Your task to perform on an android device: search for starred emails in the gmail app Image 0: 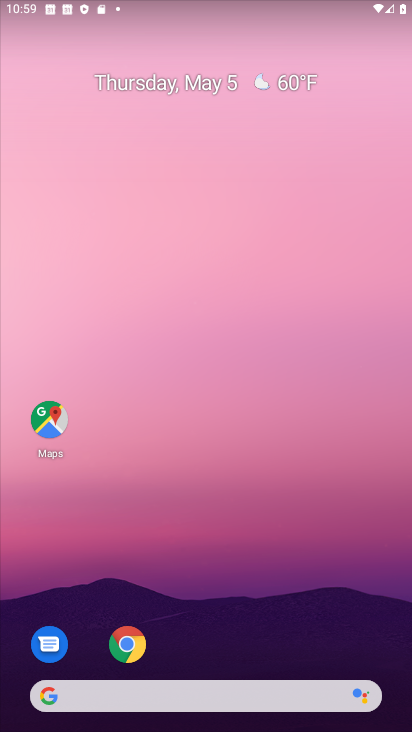
Step 0: drag from (207, 642) to (277, 202)
Your task to perform on an android device: search for starred emails in the gmail app Image 1: 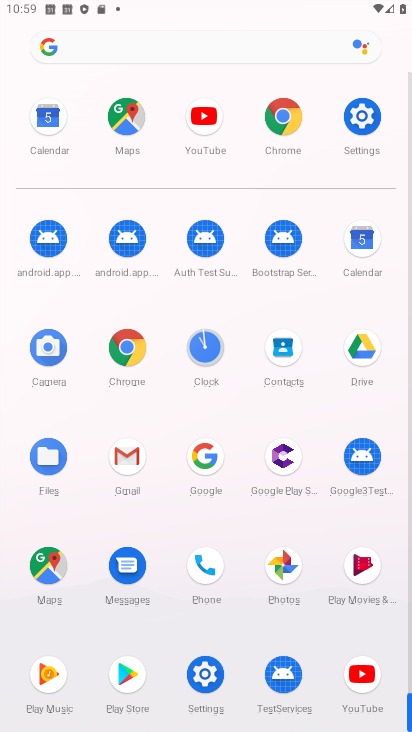
Step 1: click (123, 464)
Your task to perform on an android device: search for starred emails in the gmail app Image 2: 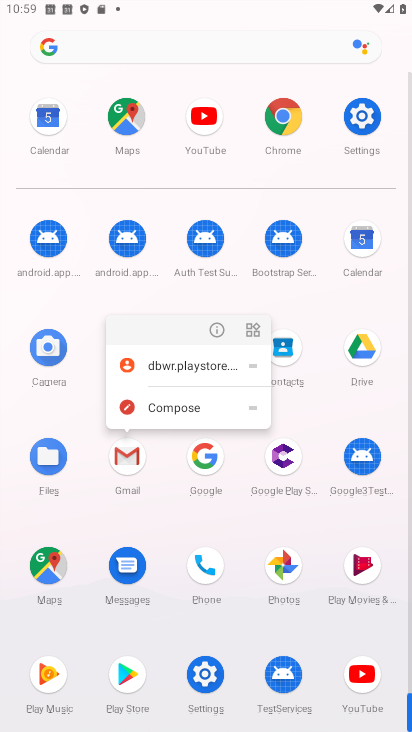
Step 2: click (216, 327)
Your task to perform on an android device: search for starred emails in the gmail app Image 3: 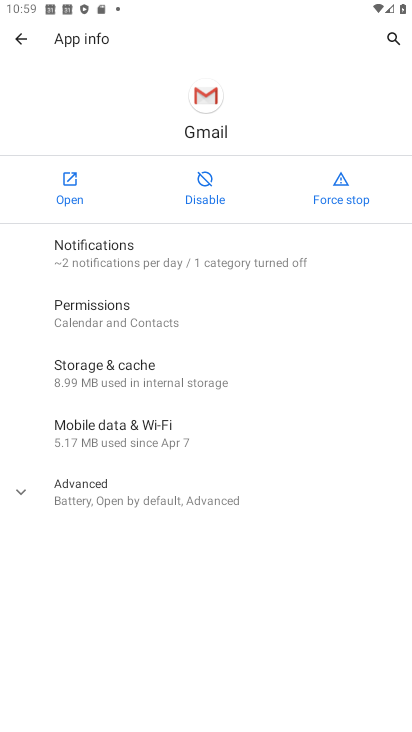
Step 3: click (73, 195)
Your task to perform on an android device: search for starred emails in the gmail app Image 4: 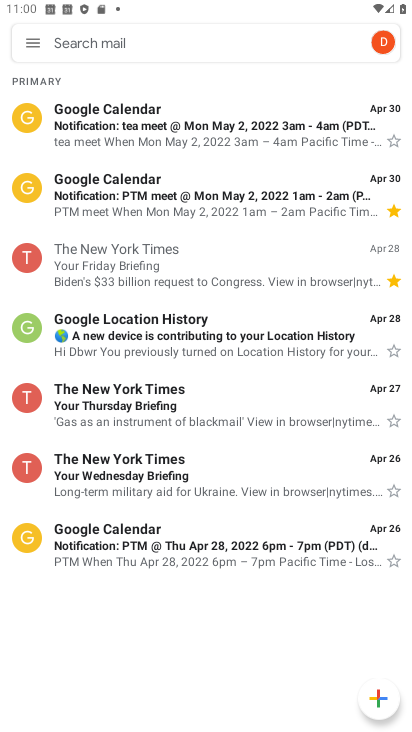
Step 4: click (32, 55)
Your task to perform on an android device: search for starred emails in the gmail app Image 5: 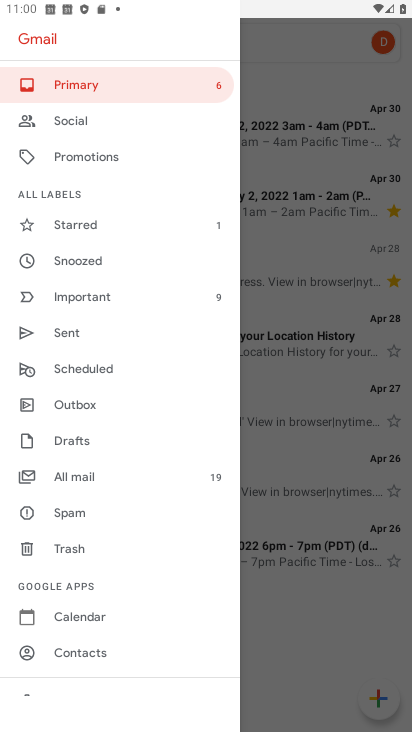
Step 5: click (73, 224)
Your task to perform on an android device: search for starred emails in the gmail app Image 6: 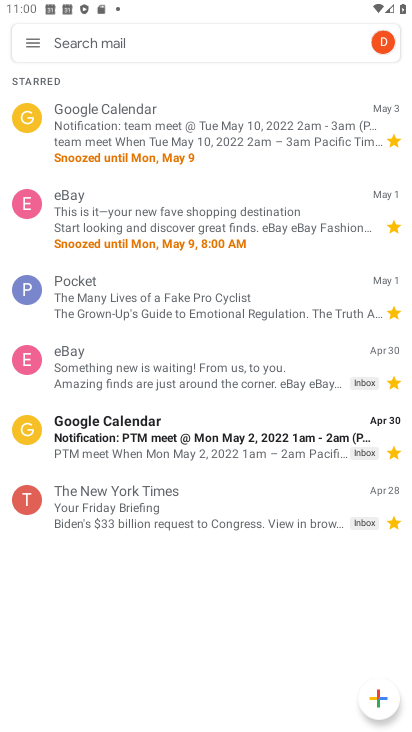
Step 6: click (13, 37)
Your task to perform on an android device: search for starred emails in the gmail app Image 7: 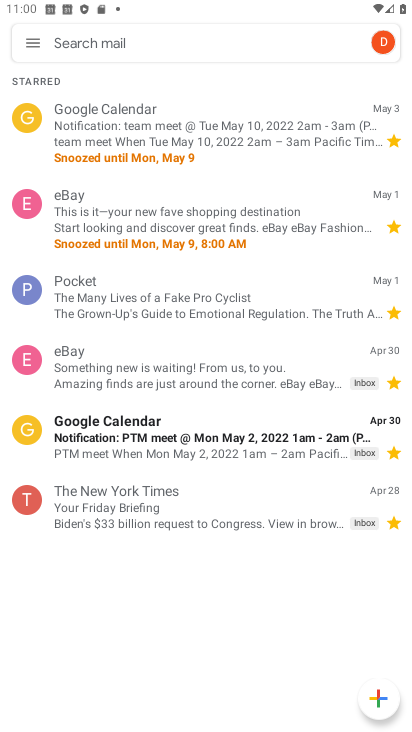
Step 7: click (23, 48)
Your task to perform on an android device: search for starred emails in the gmail app Image 8: 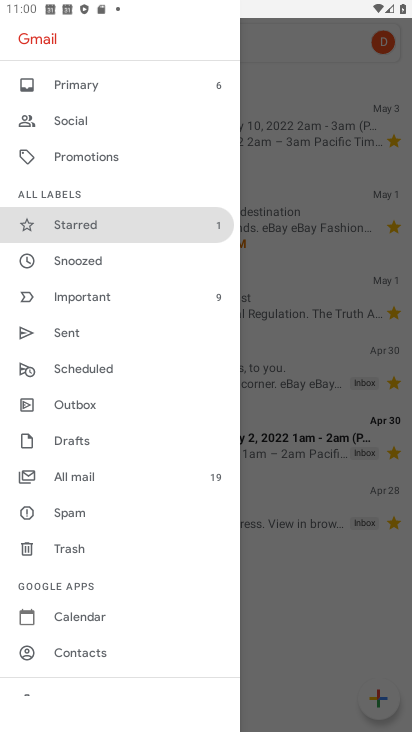
Step 8: click (120, 227)
Your task to perform on an android device: search for starred emails in the gmail app Image 9: 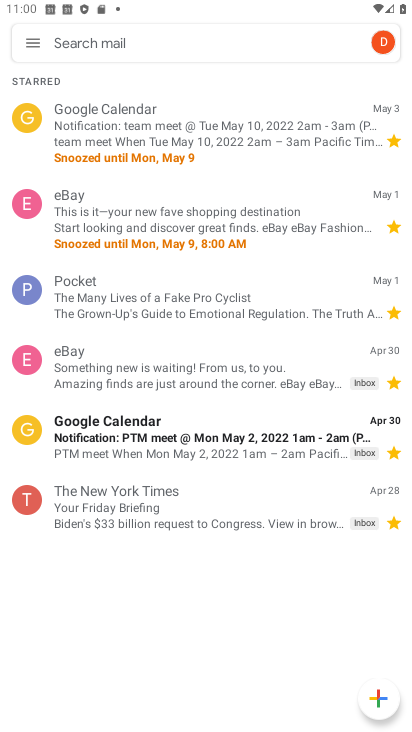
Step 9: drag from (163, 550) to (234, 211)
Your task to perform on an android device: search for starred emails in the gmail app Image 10: 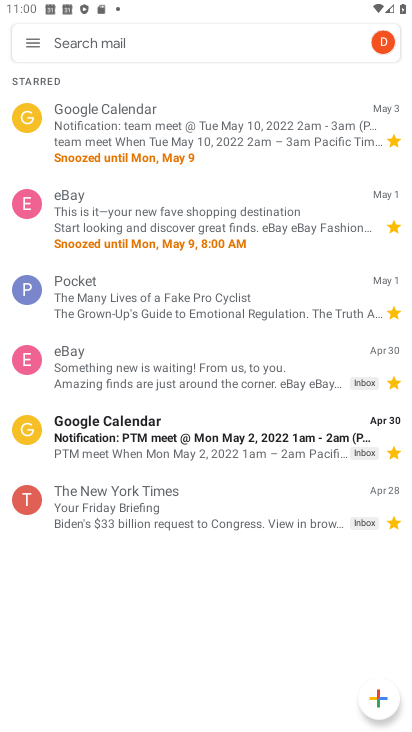
Step 10: drag from (244, 489) to (282, 160)
Your task to perform on an android device: search for starred emails in the gmail app Image 11: 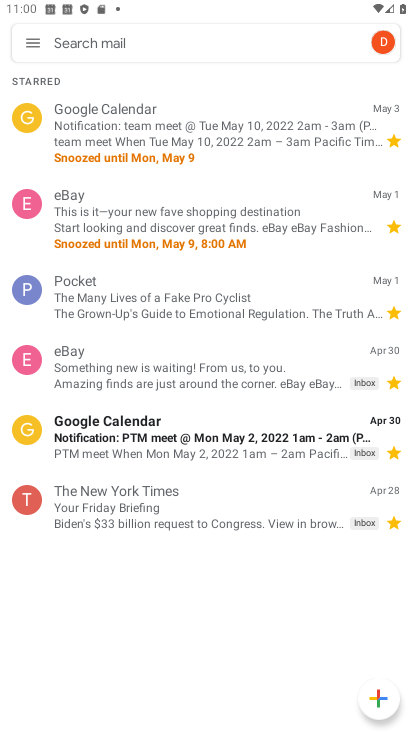
Step 11: click (40, 38)
Your task to perform on an android device: search for starred emails in the gmail app Image 12: 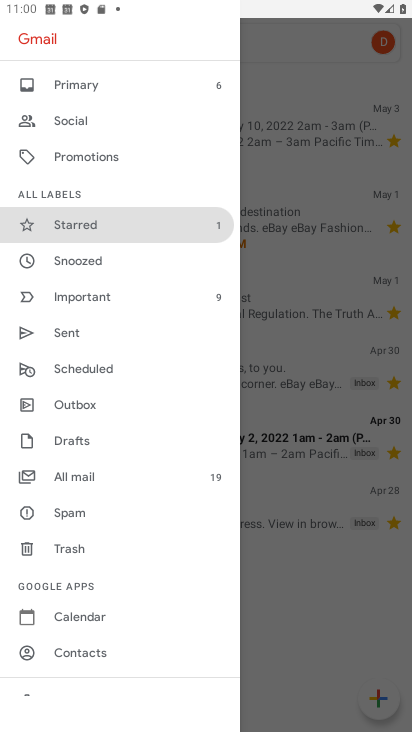
Step 12: click (77, 229)
Your task to perform on an android device: search for starred emails in the gmail app Image 13: 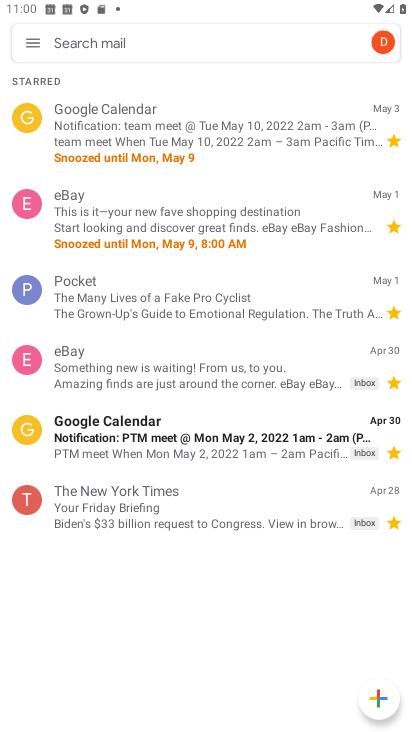
Step 13: drag from (236, 563) to (236, 302)
Your task to perform on an android device: search for starred emails in the gmail app Image 14: 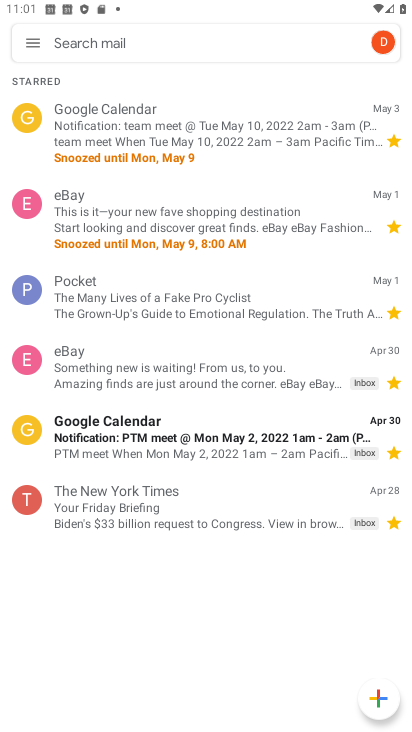
Step 14: click (34, 38)
Your task to perform on an android device: search for starred emails in the gmail app Image 15: 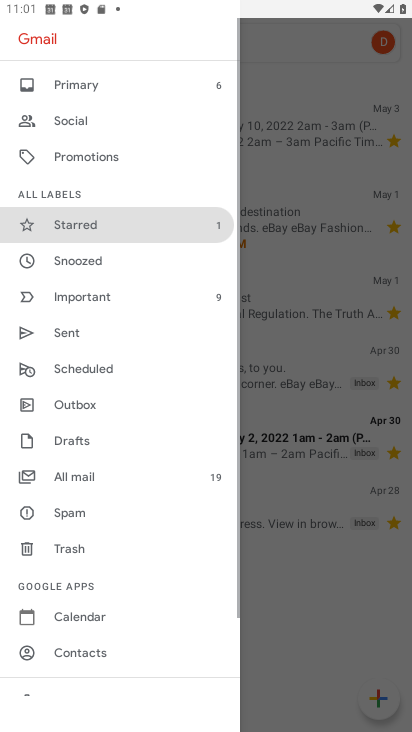
Step 15: click (118, 229)
Your task to perform on an android device: search for starred emails in the gmail app Image 16: 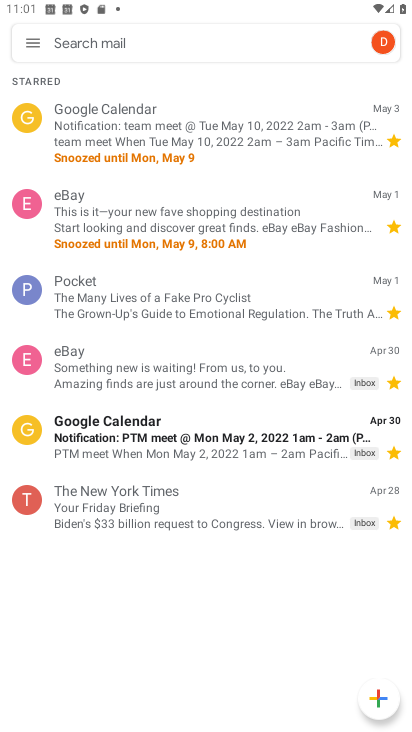
Step 16: task complete